Your task to perform on an android device: turn off smart reply in the gmail app Image 0: 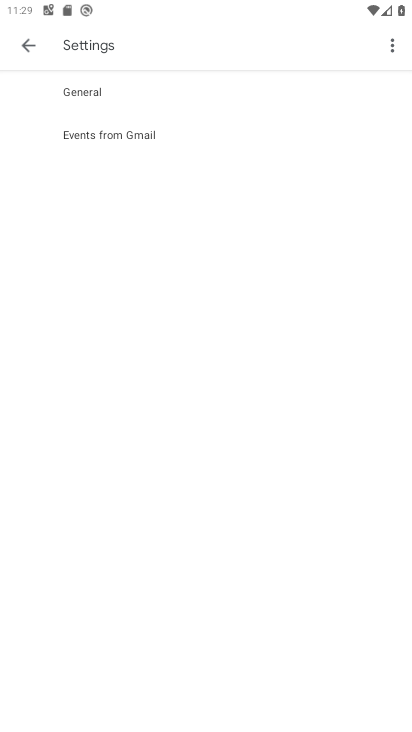
Step 0: press home button
Your task to perform on an android device: turn off smart reply in the gmail app Image 1: 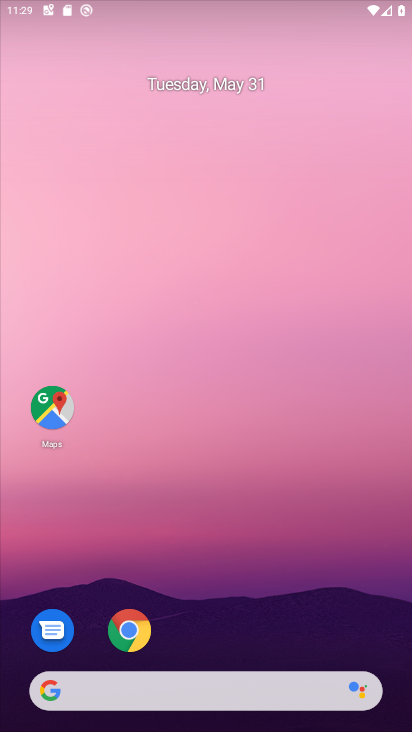
Step 1: drag from (257, 588) to (254, 116)
Your task to perform on an android device: turn off smart reply in the gmail app Image 2: 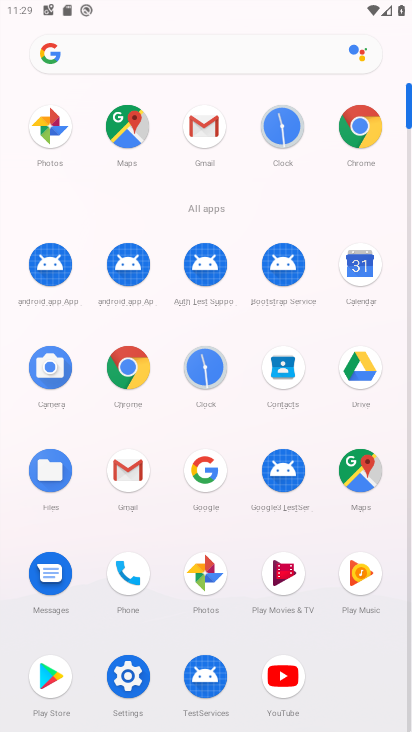
Step 2: click (137, 474)
Your task to perform on an android device: turn off smart reply in the gmail app Image 3: 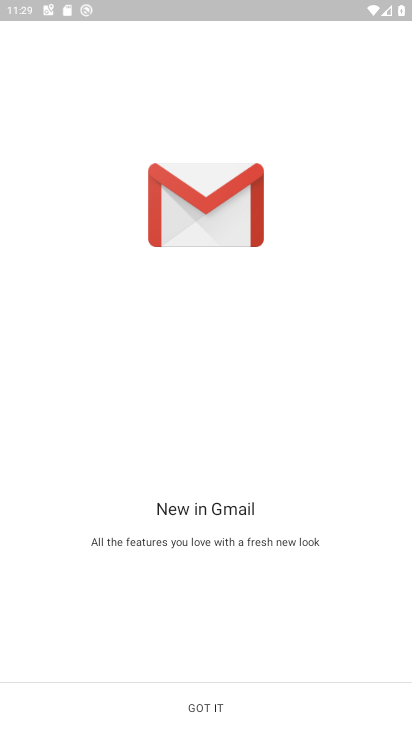
Step 3: click (213, 706)
Your task to perform on an android device: turn off smart reply in the gmail app Image 4: 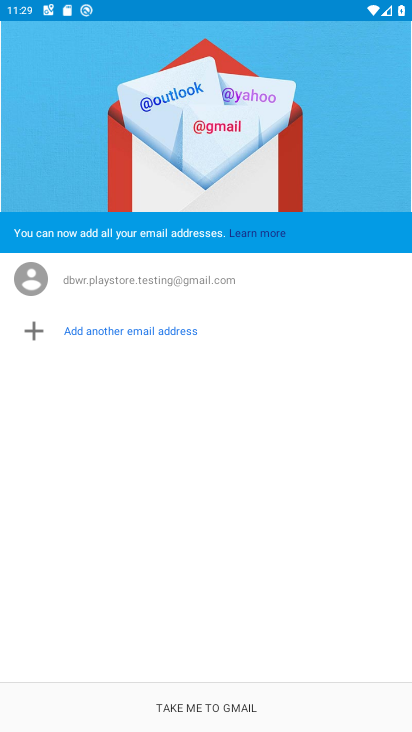
Step 4: click (216, 703)
Your task to perform on an android device: turn off smart reply in the gmail app Image 5: 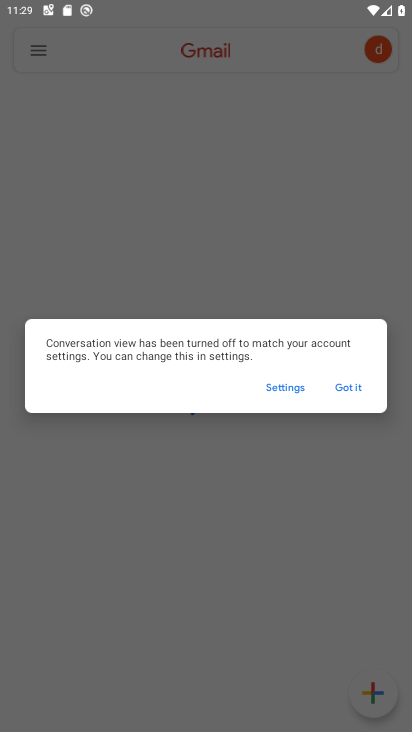
Step 5: click (343, 369)
Your task to perform on an android device: turn off smart reply in the gmail app Image 6: 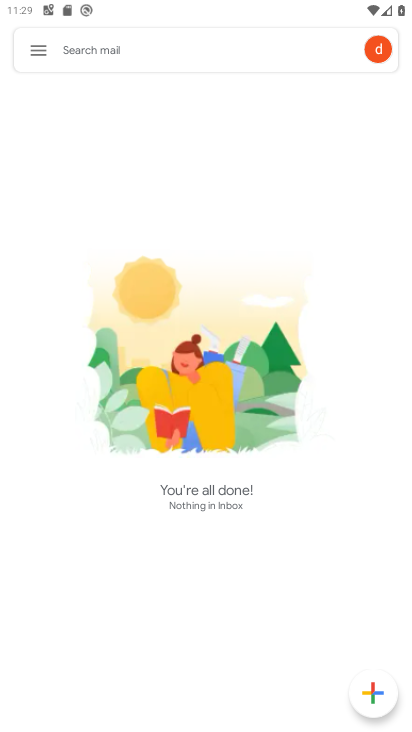
Step 6: click (38, 46)
Your task to perform on an android device: turn off smart reply in the gmail app Image 7: 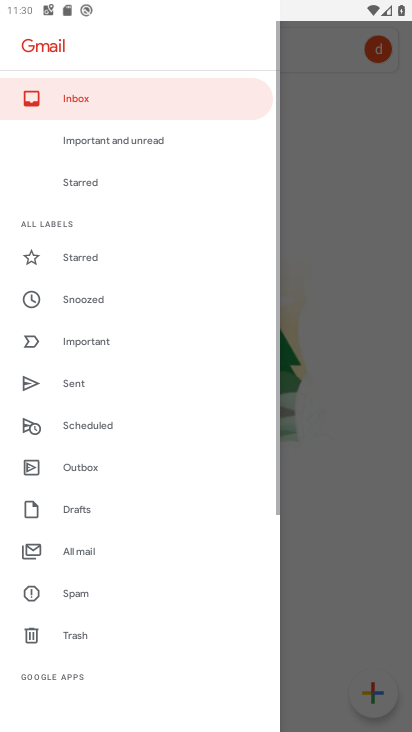
Step 7: drag from (77, 666) to (133, 405)
Your task to perform on an android device: turn off smart reply in the gmail app Image 8: 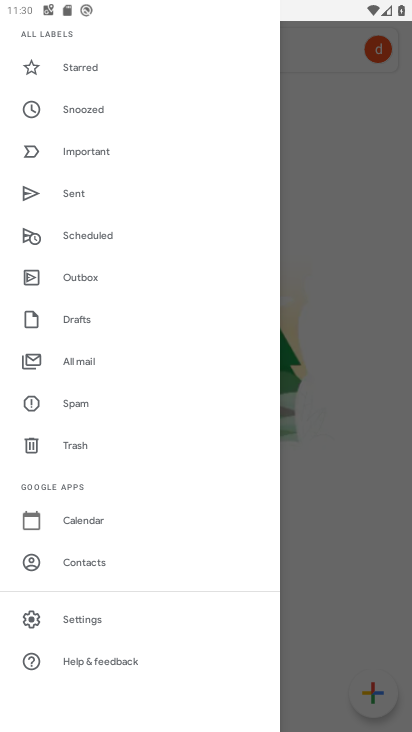
Step 8: click (80, 625)
Your task to perform on an android device: turn off smart reply in the gmail app Image 9: 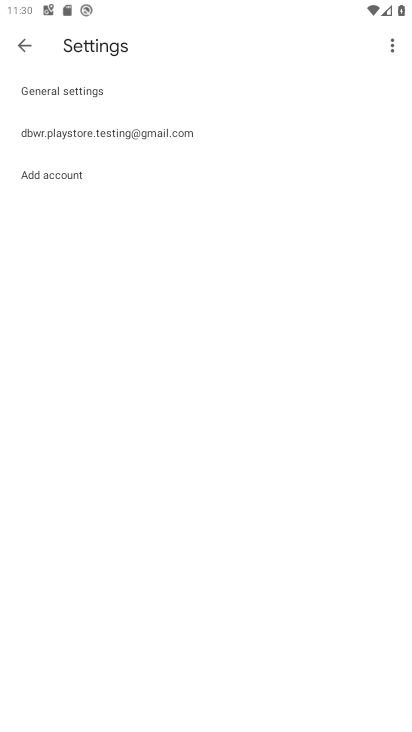
Step 9: click (89, 124)
Your task to perform on an android device: turn off smart reply in the gmail app Image 10: 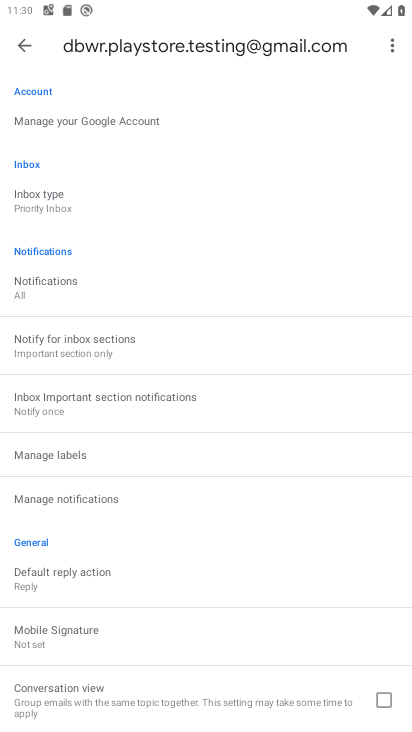
Step 10: click (77, 208)
Your task to perform on an android device: turn off smart reply in the gmail app Image 11: 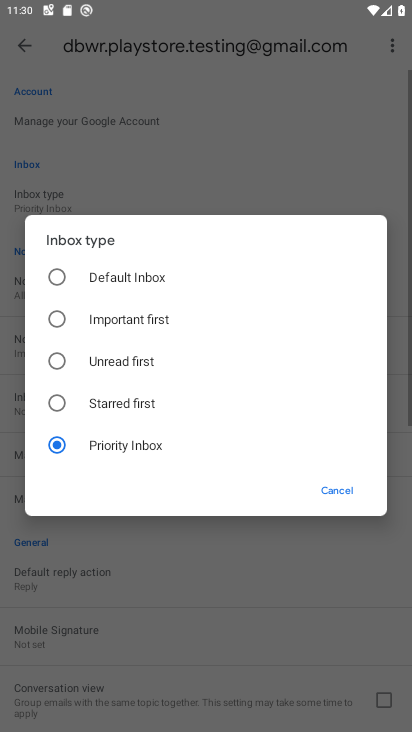
Step 11: click (247, 589)
Your task to perform on an android device: turn off smart reply in the gmail app Image 12: 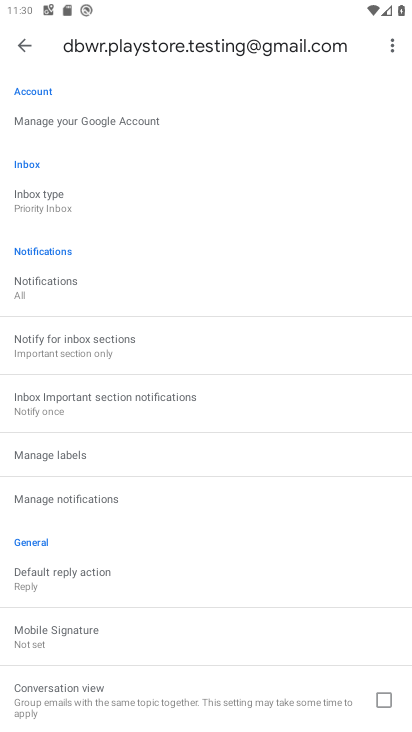
Step 12: click (346, 480)
Your task to perform on an android device: turn off smart reply in the gmail app Image 13: 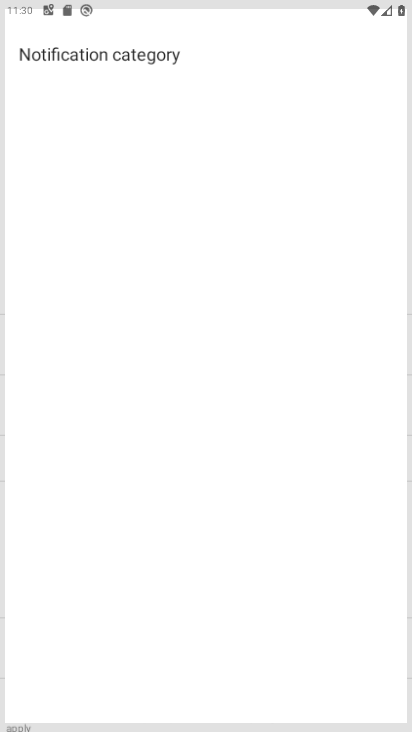
Step 13: drag from (250, 621) to (293, 286)
Your task to perform on an android device: turn off smart reply in the gmail app Image 14: 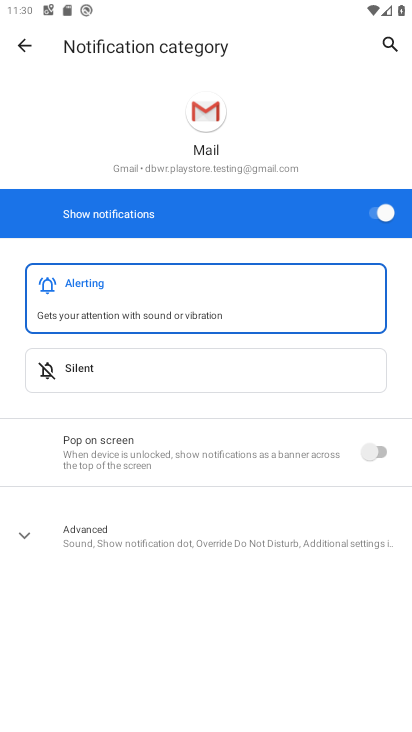
Step 14: press back button
Your task to perform on an android device: turn off smart reply in the gmail app Image 15: 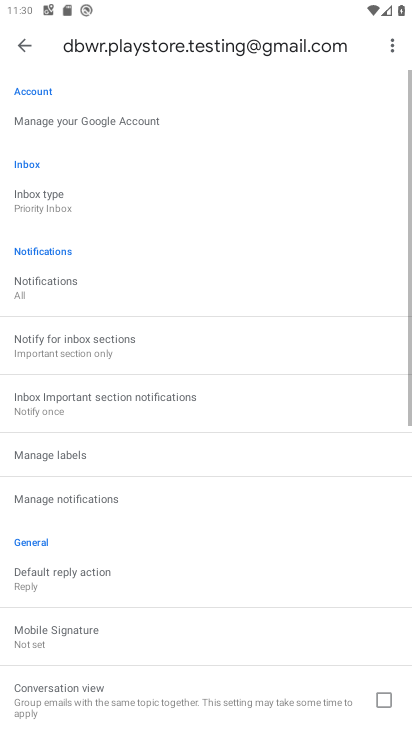
Step 15: drag from (179, 630) to (232, 273)
Your task to perform on an android device: turn off smart reply in the gmail app Image 16: 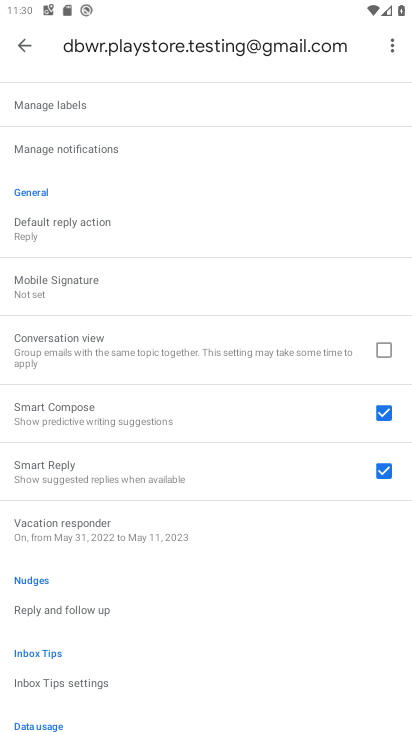
Step 16: drag from (141, 662) to (191, 388)
Your task to perform on an android device: turn off smart reply in the gmail app Image 17: 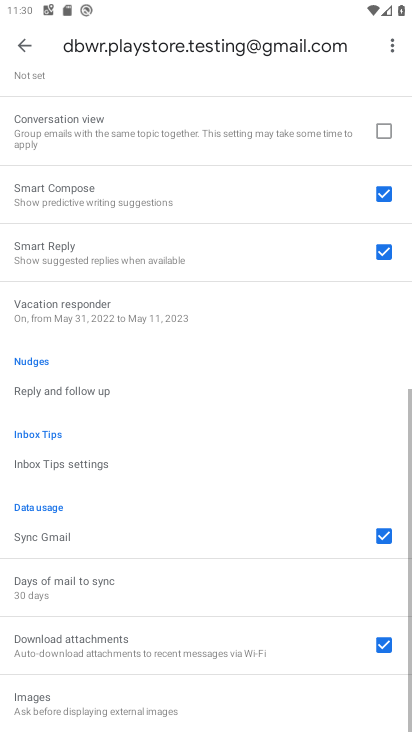
Step 17: drag from (119, 691) to (169, 337)
Your task to perform on an android device: turn off smart reply in the gmail app Image 18: 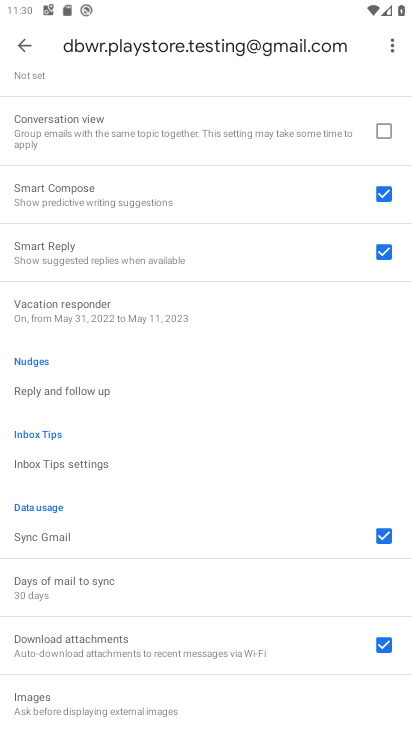
Step 18: drag from (275, 166) to (267, 414)
Your task to perform on an android device: turn off smart reply in the gmail app Image 19: 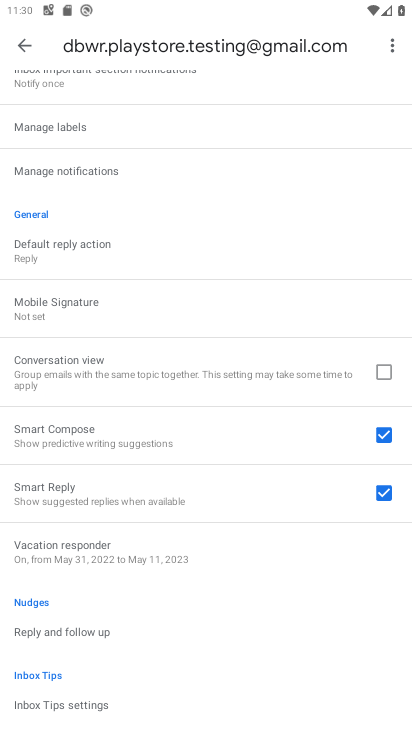
Step 19: click (376, 489)
Your task to perform on an android device: turn off smart reply in the gmail app Image 20: 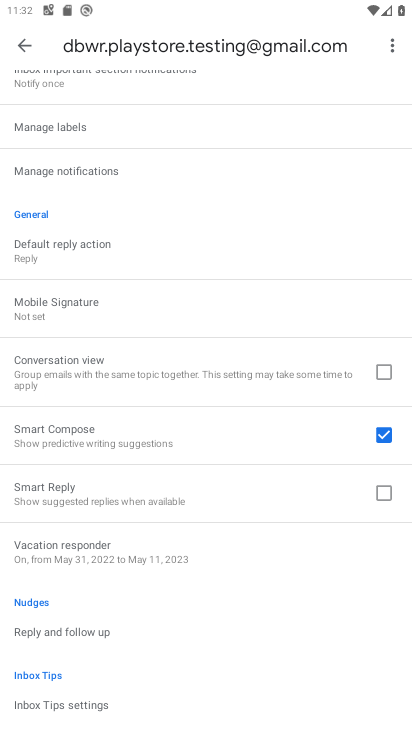
Step 20: task complete